Your task to perform on an android device: Is it going to rain tomorrow? Image 0: 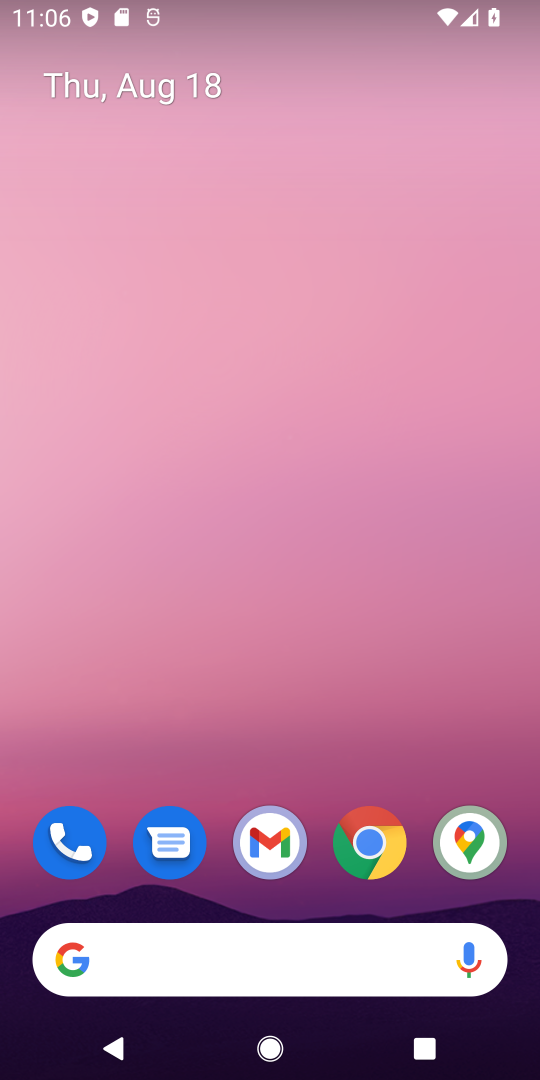
Step 0: click (242, 959)
Your task to perform on an android device: Is it going to rain tomorrow? Image 1: 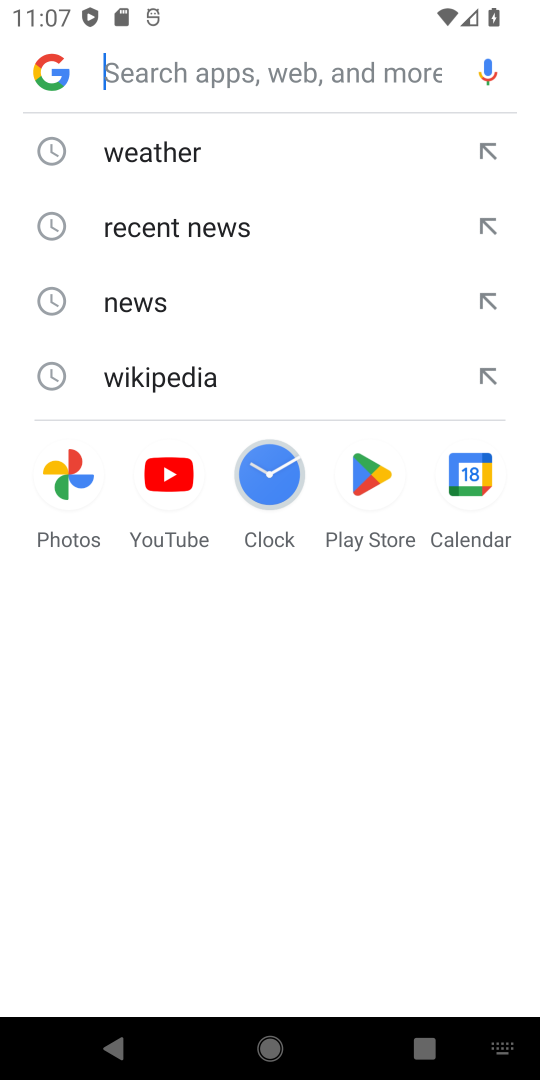
Step 1: click (140, 156)
Your task to perform on an android device: Is it going to rain tomorrow? Image 2: 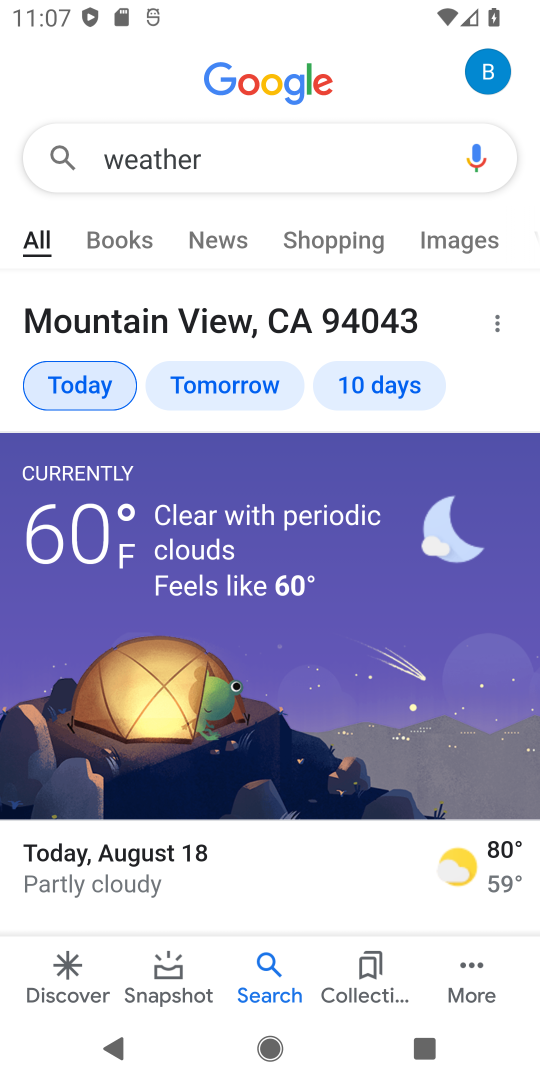
Step 2: click (250, 381)
Your task to perform on an android device: Is it going to rain tomorrow? Image 3: 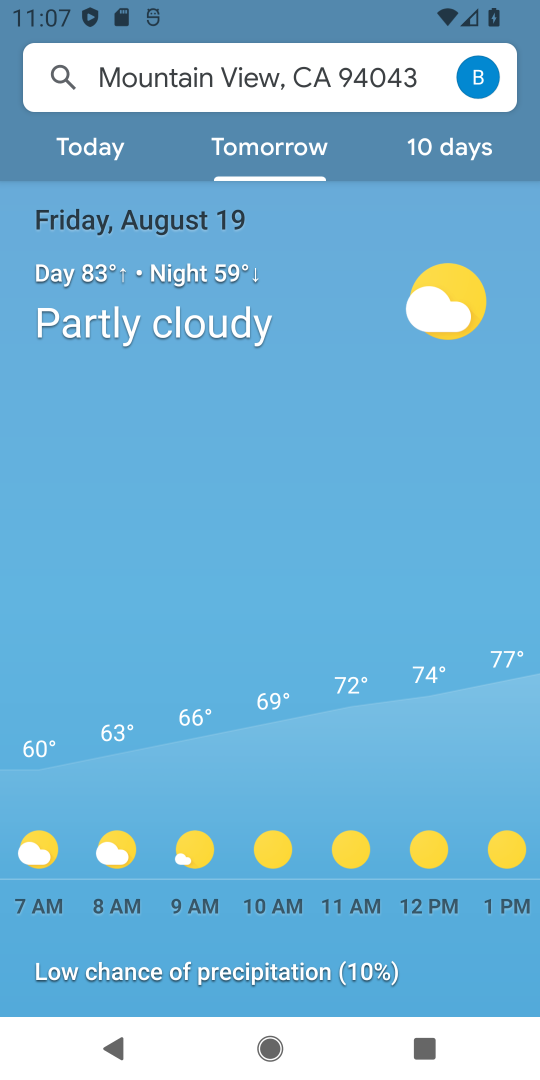
Step 3: task complete